Your task to perform on an android device: Open settings Image 0: 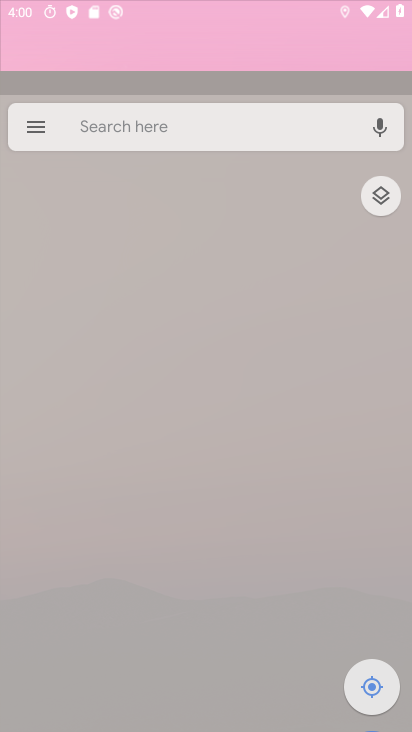
Step 0: drag from (162, 157) to (197, 47)
Your task to perform on an android device: Open settings Image 1: 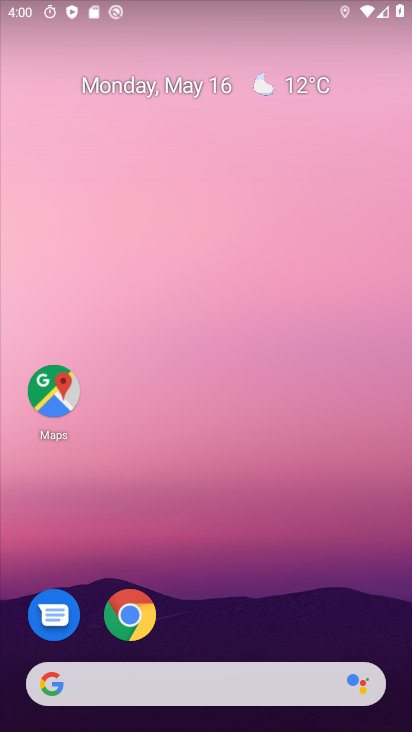
Step 1: drag from (292, 533) to (161, 27)
Your task to perform on an android device: Open settings Image 2: 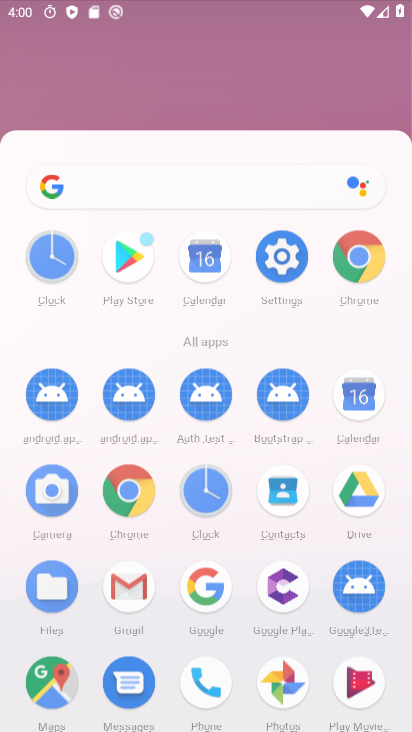
Step 2: drag from (243, 565) to (165, 30)
Your task to perform on an android device: Open settings Image 3: 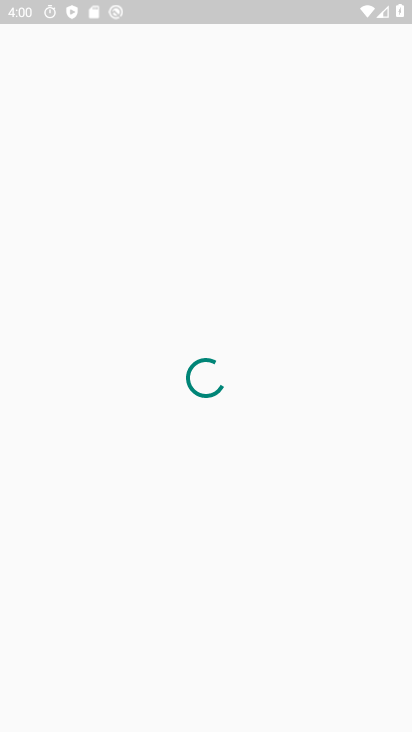
Step 3: click (287, 143)
Your task to perform on an android device: Open settings Image 4: 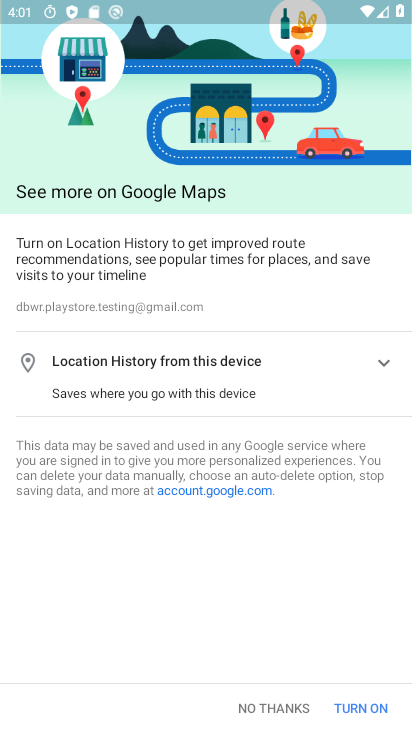
Step 4: press back button
Your task to perform on an android device: Open settings Image 5: 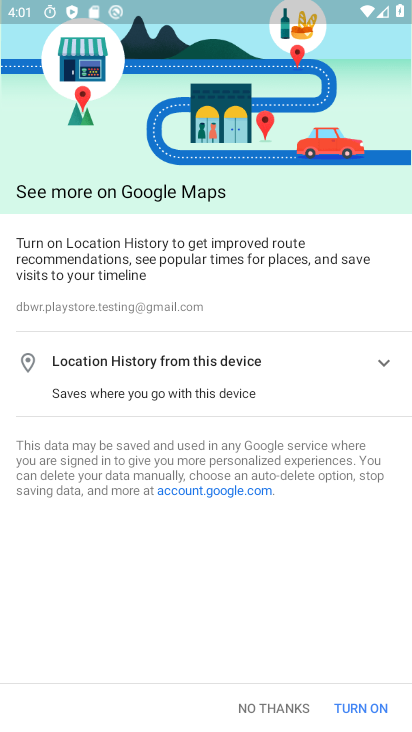
Step 5: press back button
Your task to perform on an android device: Open settings Image 6: 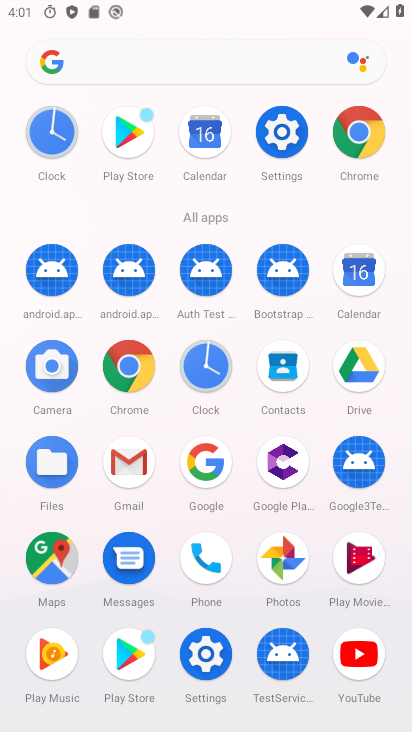
Step 6: click (280, 137)
Your task to perform on an android device: Open settings Image 7: 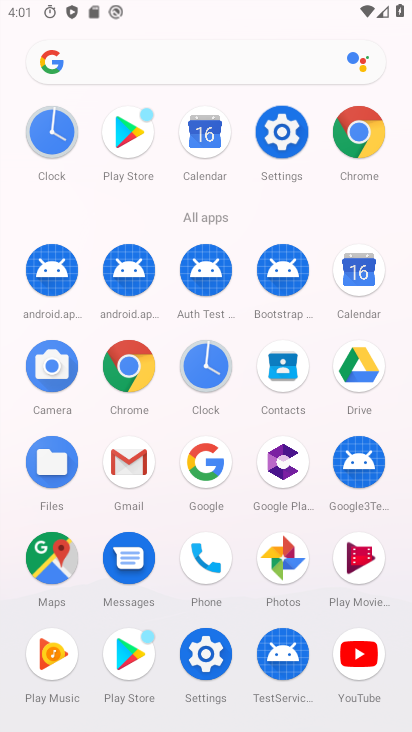
Step 7: click (282, 136)
Your task to perform on an android device: Open settings Image 8: 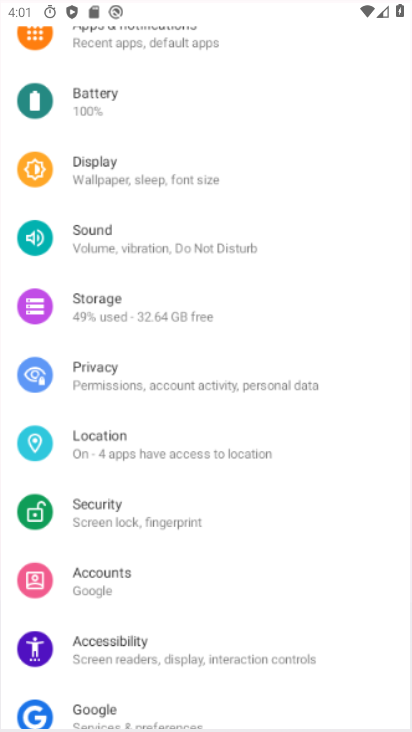
Step 8: click (284, 138)
Your task to perform on an android device: Open settings Image 9: 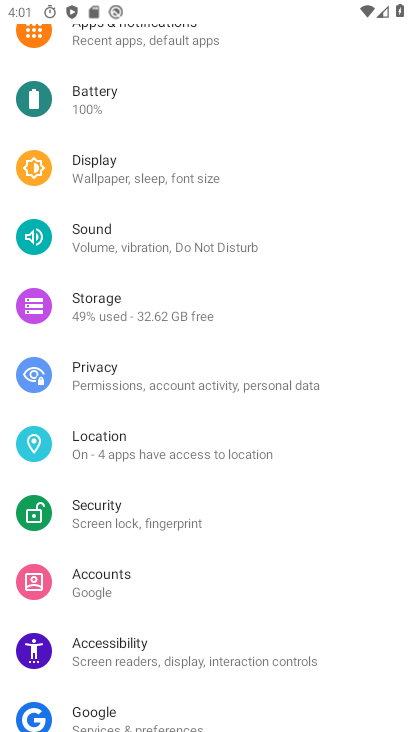
Step 9: task complete